Your task to perform on an android device: Open Google Image 0: 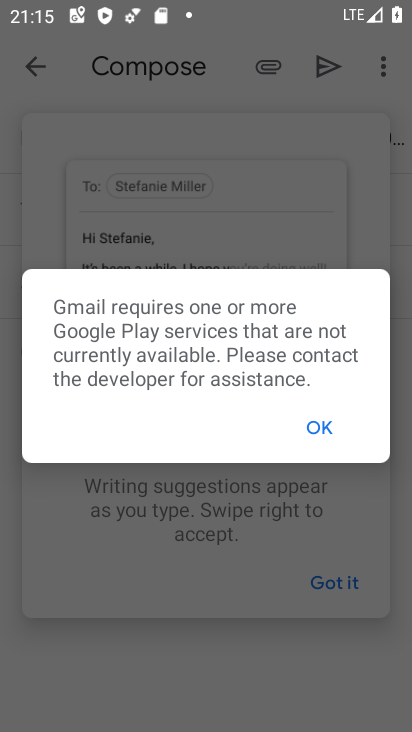
Step 0: press home button
Your task to perform on an android device: Open Google Image 1: 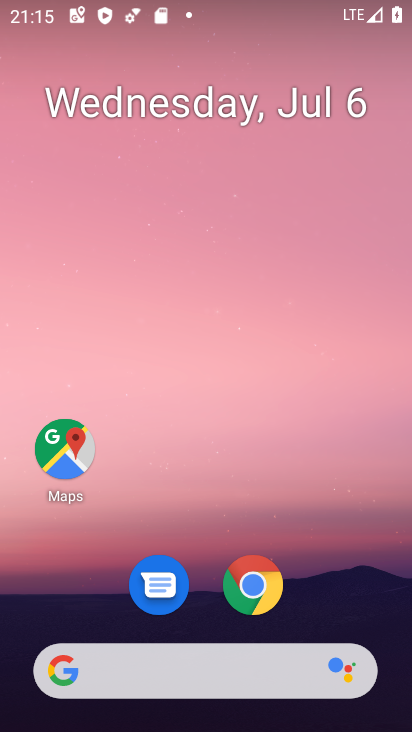
Step 1: click (191, 680)
Your task to perform on an android device: Open Google Image 2: 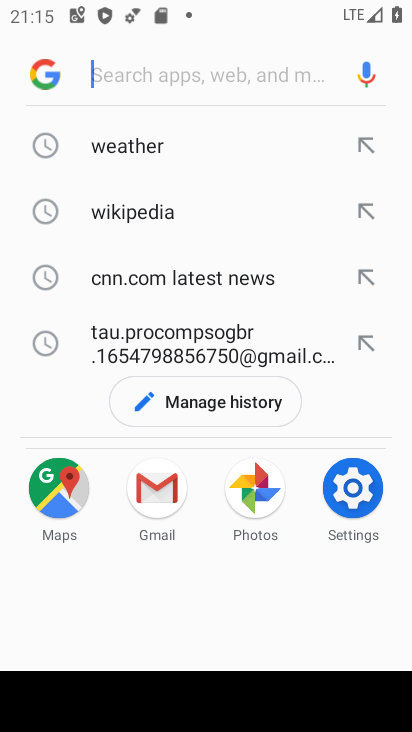
Step 2: click (41, 68)
Your task to perform on an android device: Open Google Image 3: 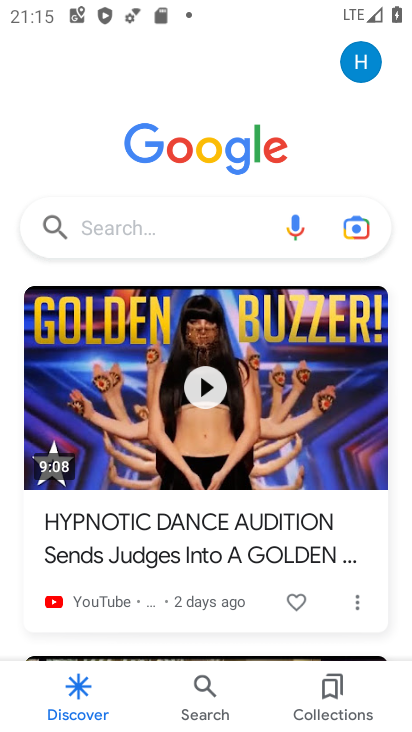
Step 3: task complete